Your task to perform on an android device: set the stopwatch Image 0: 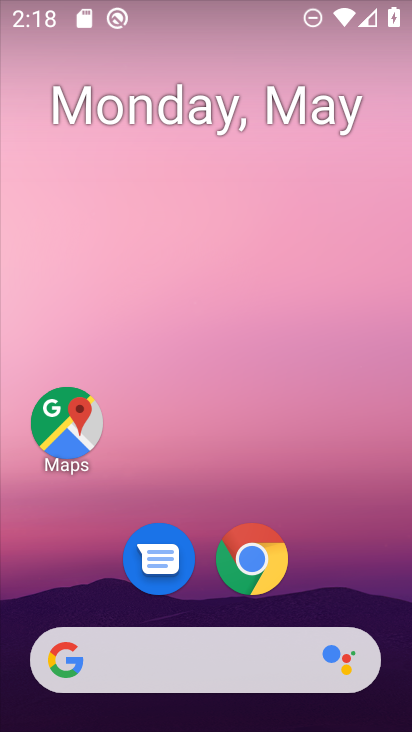
Step 0: drag from (385, 567) to (248, 27)
Your task to perform on an android device: set the stopwatch Image 1: 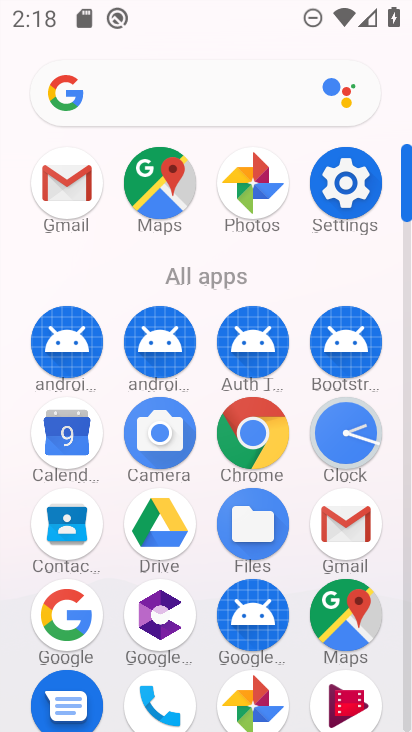
Step 1: click (340, 443)
Your task to perform on an android device: set the stopwatch Image 2: 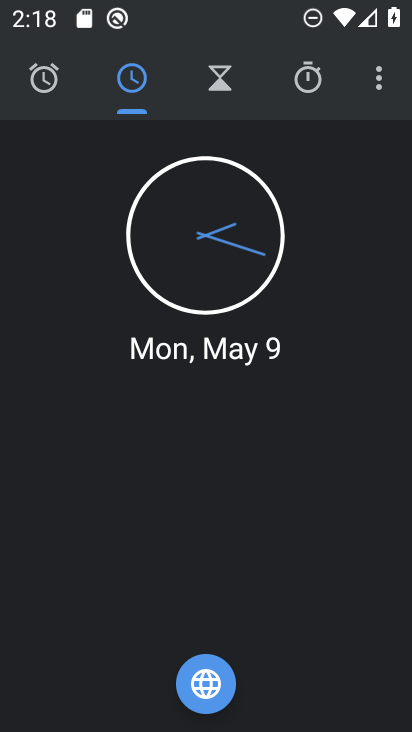
Step 2: click (318, 75)
Your task to perform on an android device: set the stopwatch Image 3: 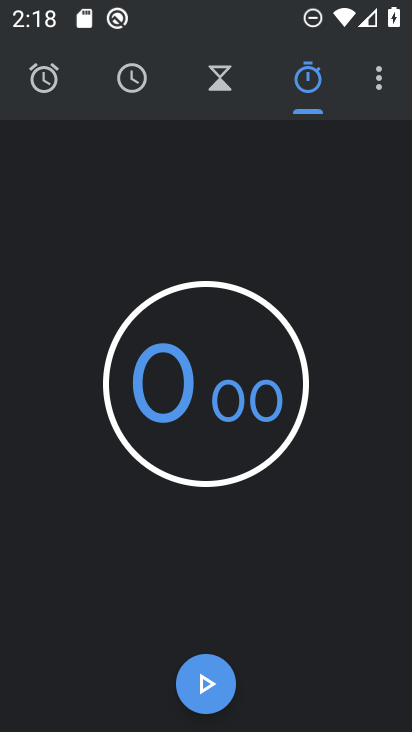
Step 3: click (213, 684)
Your task to perform on an android device: set the stopwatch Image 4: 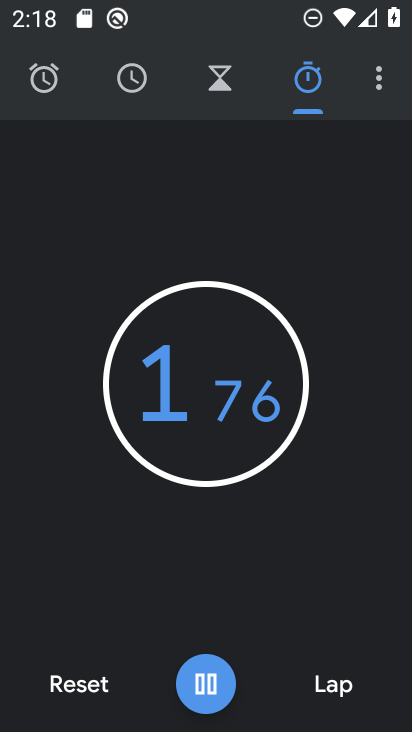
Step 4: click (209, 684)
Your task to perform on an android device: set the stopwatch Image 5: 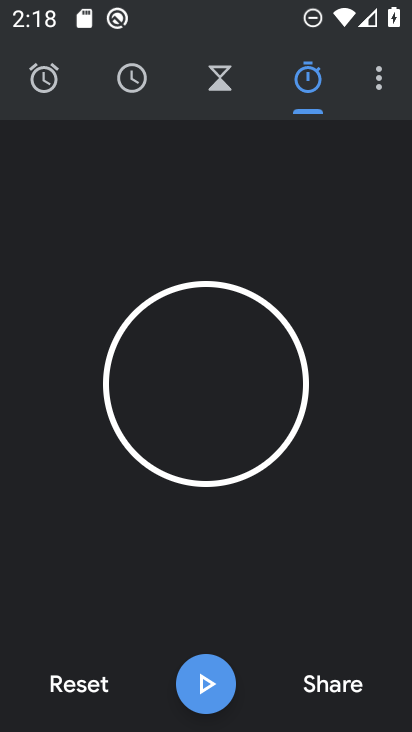
Step 5: task complete